Your task to perform on an android device: Open the Play Movies app and select the watchlist tab. Image 0: 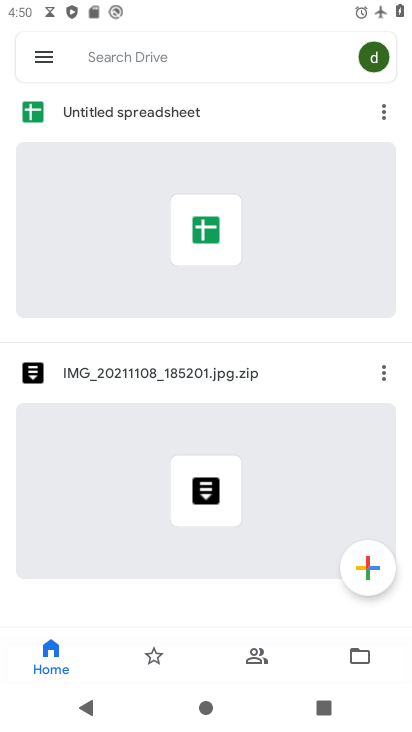
Step 0: press home button
Your task to perform on an android device: Open the Play Movies app and select the watchlist tab. Image 1: 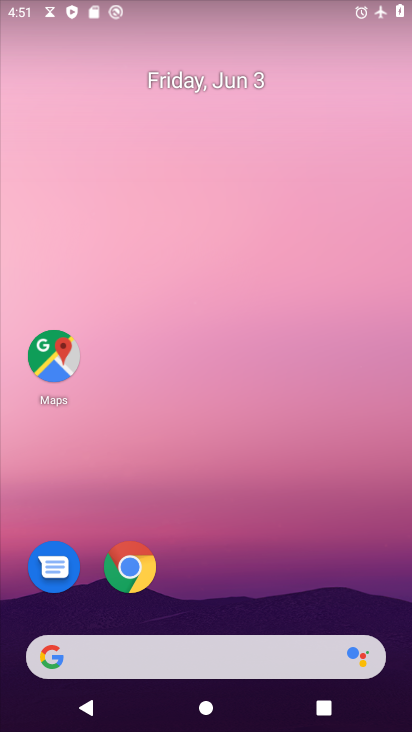
Step 1: drag from (222, 508) to (235, 11)
Your task to perform on an android device: Open the Play Movies app and select the watchlist tab. Image 2: 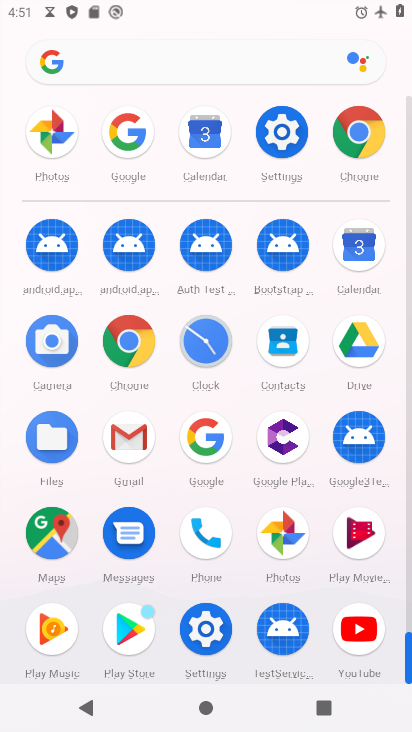
Step 2: click (360, 533)
Your task to perform on an android device: Open the Play Movies app and select the watchlist tab. Image 3: 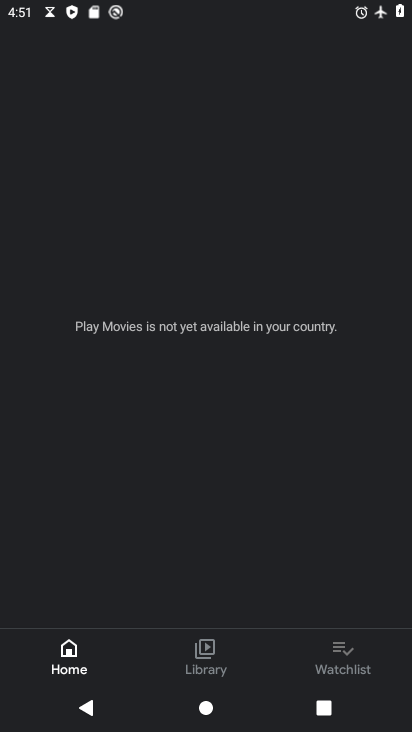
Step 3: click (341, 647)
Your task to perform on an android device: Open the Play Movies app and select the watchlist tab. Image 4: 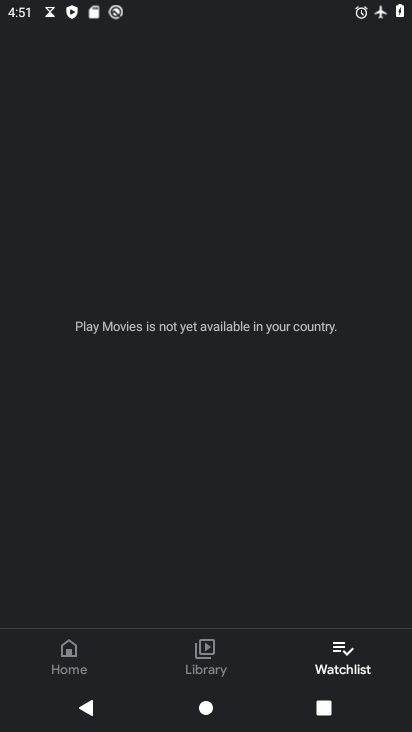
Step 4: task complete